Your task to perform on an android device: Show me recent news Image 0: 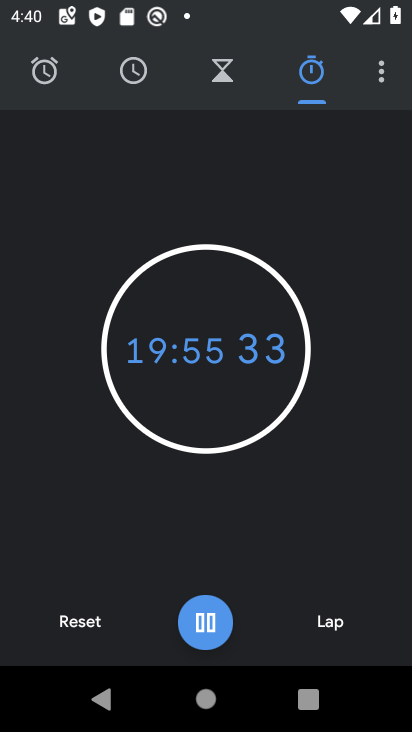
Step 0: press home button
Your task to perform on an android device: Show me recent news Image 1: 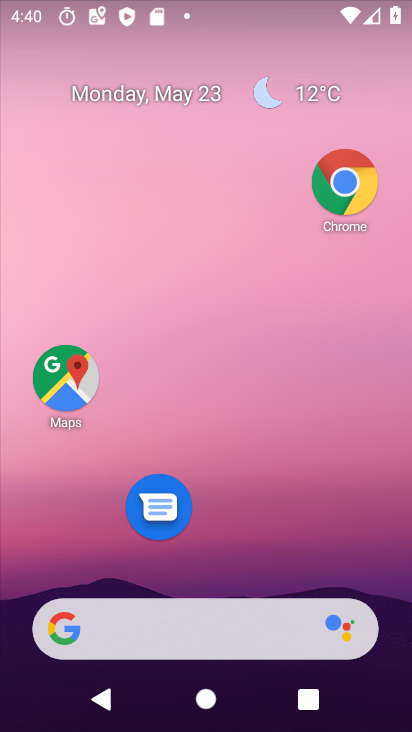
Step 1: click (268, 629)
Your task to perform on an android device: Show me recent news Image 2: 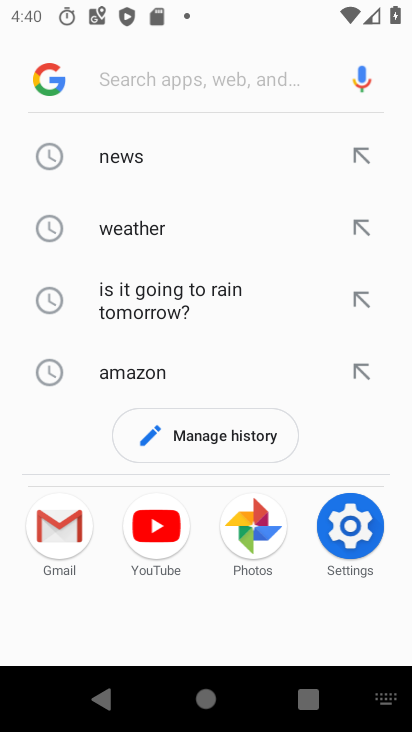
Step 2: click (144, 173)
Your task to perform on an android device: Show me recent news Image 3: 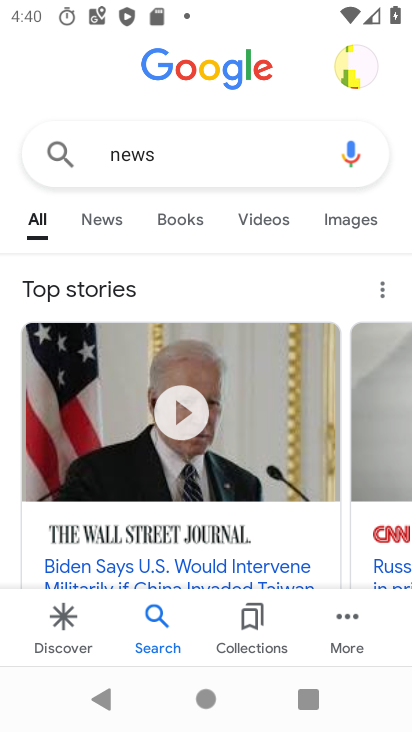
Step 3: task complete